Your task to perform on an android device: find snoozed emails in the gmail app Image 0: 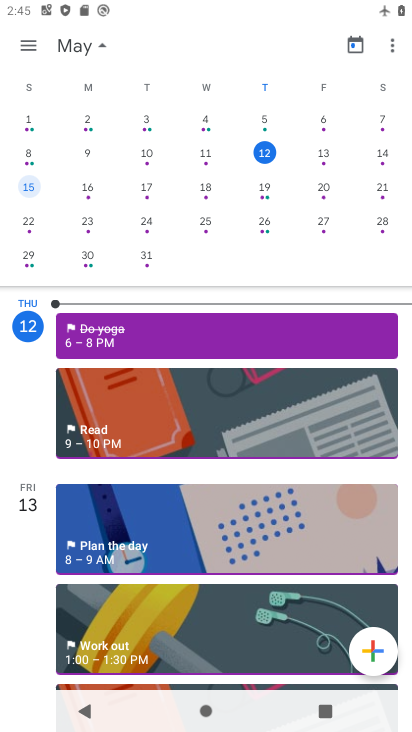
Step 0: press home button
Your task to perform on an android device: find snoozed emails in the gmail app Image 1: 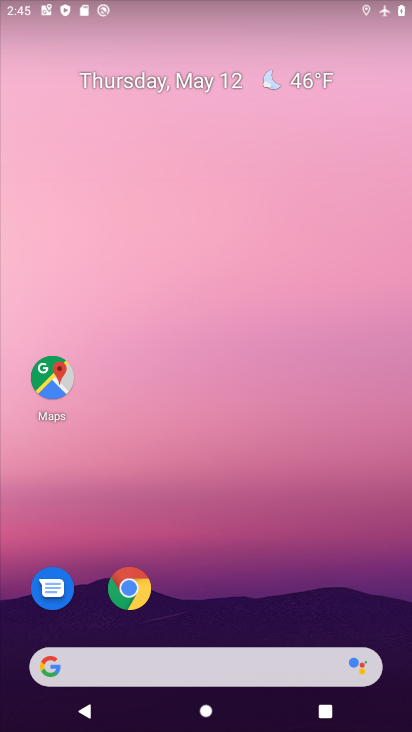
Step 1: drag from (391, 577) to (323, 175)
Your task to perform on an android device: find snoozed emails in the gmail app Image 2: 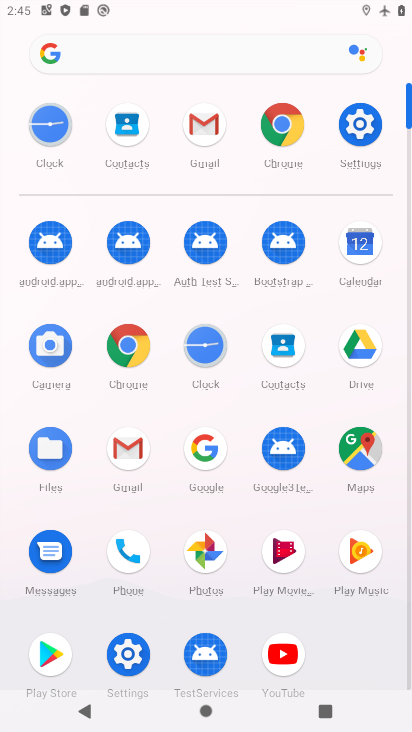
Step 2: click (135, 458)
Your task to perform on an android device: find snoozed emails in the gmail app Image 3: 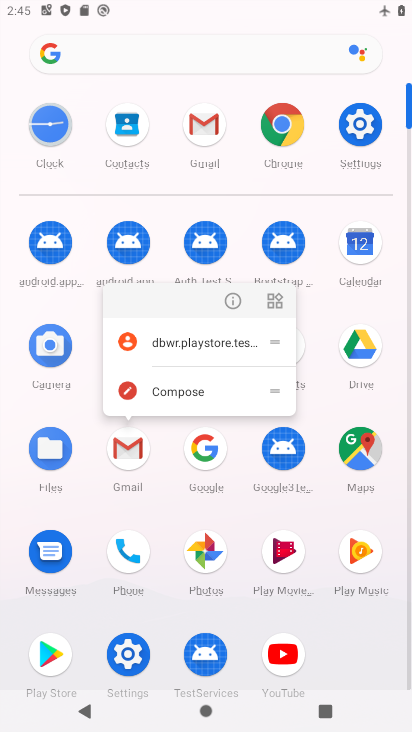
Step 3: click (131, 449)
Your task to perform on an android device: find snoozed emails in the gmail app Image 4: 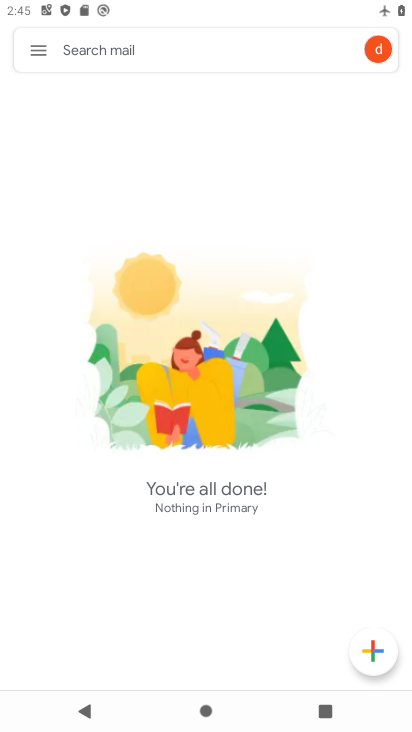
Step 4: click (27, 48)
Your task to perform on an android device: find snoozed emails in the gmail app Image 5: 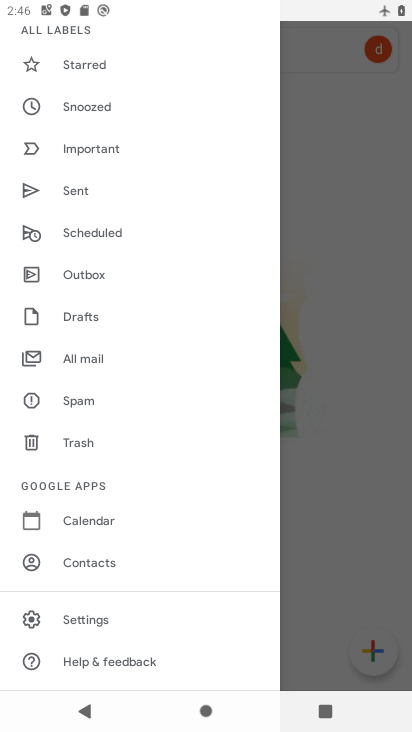
Step 5: click (126, 105)
Your task to perform on an android device: find snoozed emails in the gmail app Image 6: 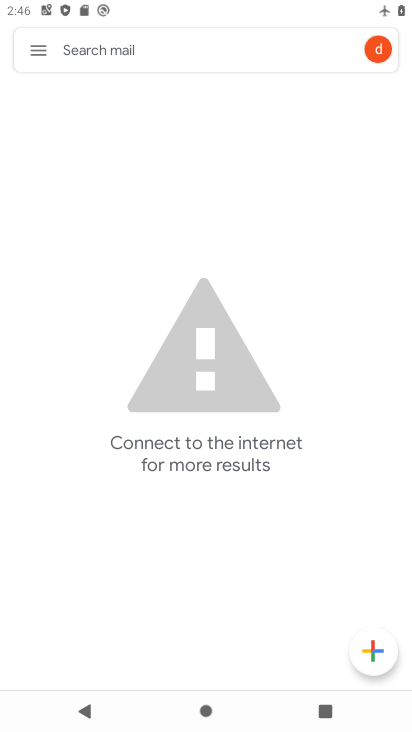
Step 6: task complete